Your task to perform on an android device: Do I have any events tomorrow? Image 0: 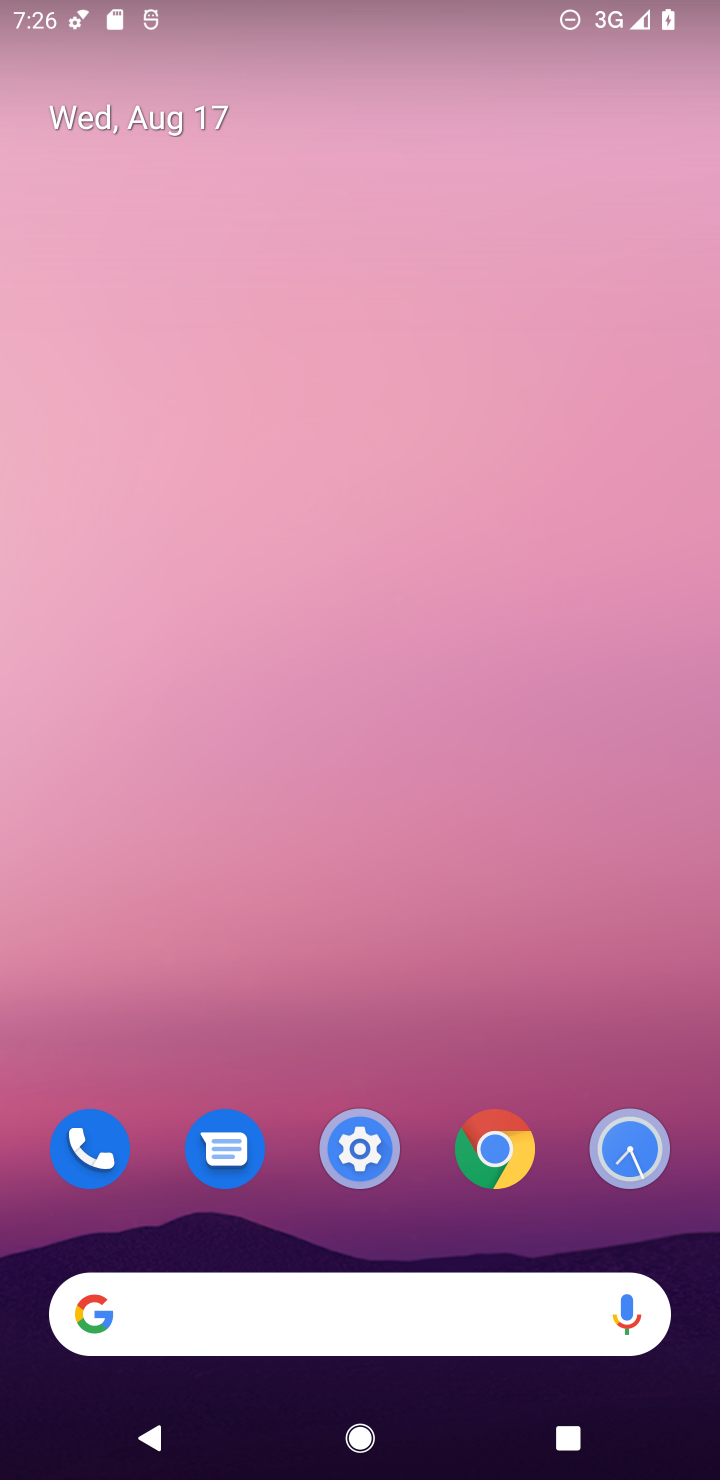
Step 0: drag from (414, 1263) to (414, 293)
Your task to perform on an android device: Do I have any events tomorrow? Image 1: 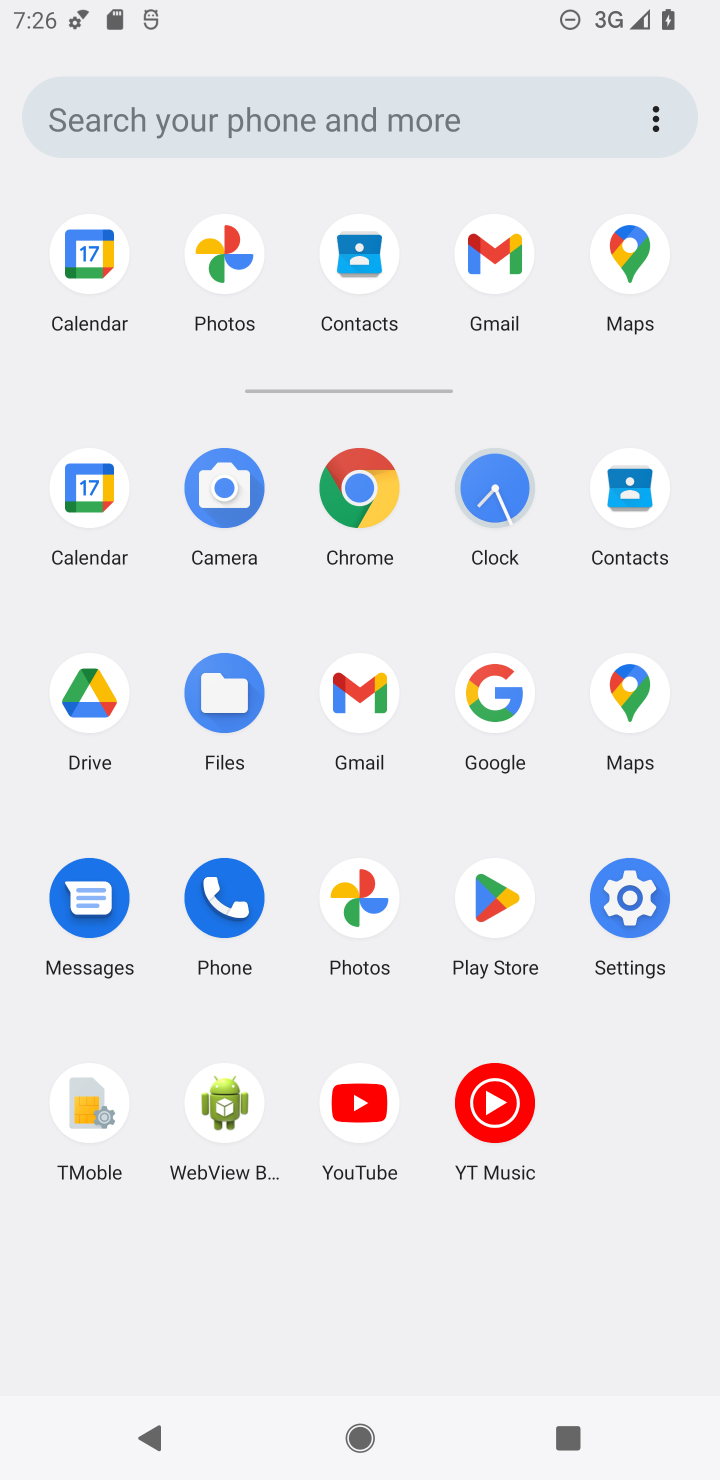
Step 1: click (89, 255)
Your task to perform on an android device: Do I have any events tomorrow? Image 2: 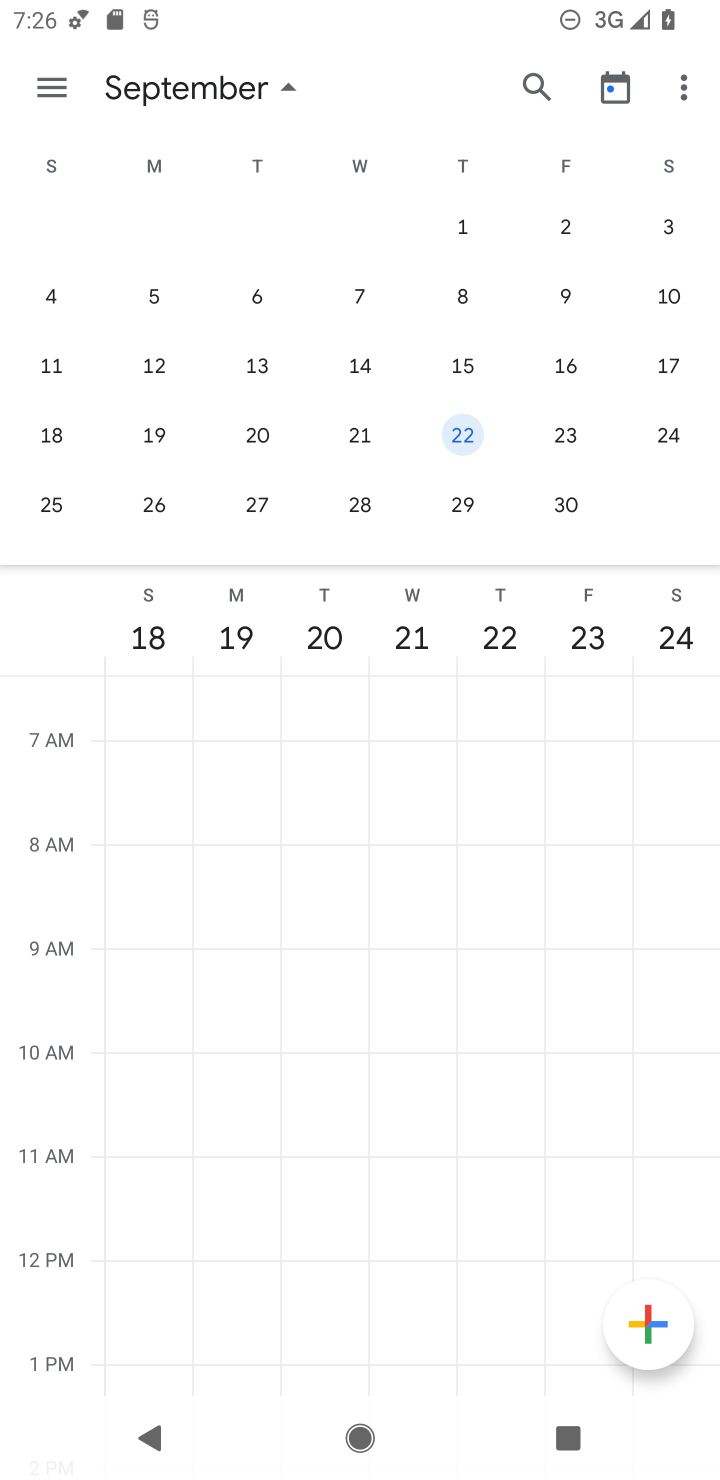
Step 2: drag from (64, 309) to (574, 368)
Your task to perform on an android device: Do I have any events tomorrow? Image 3: 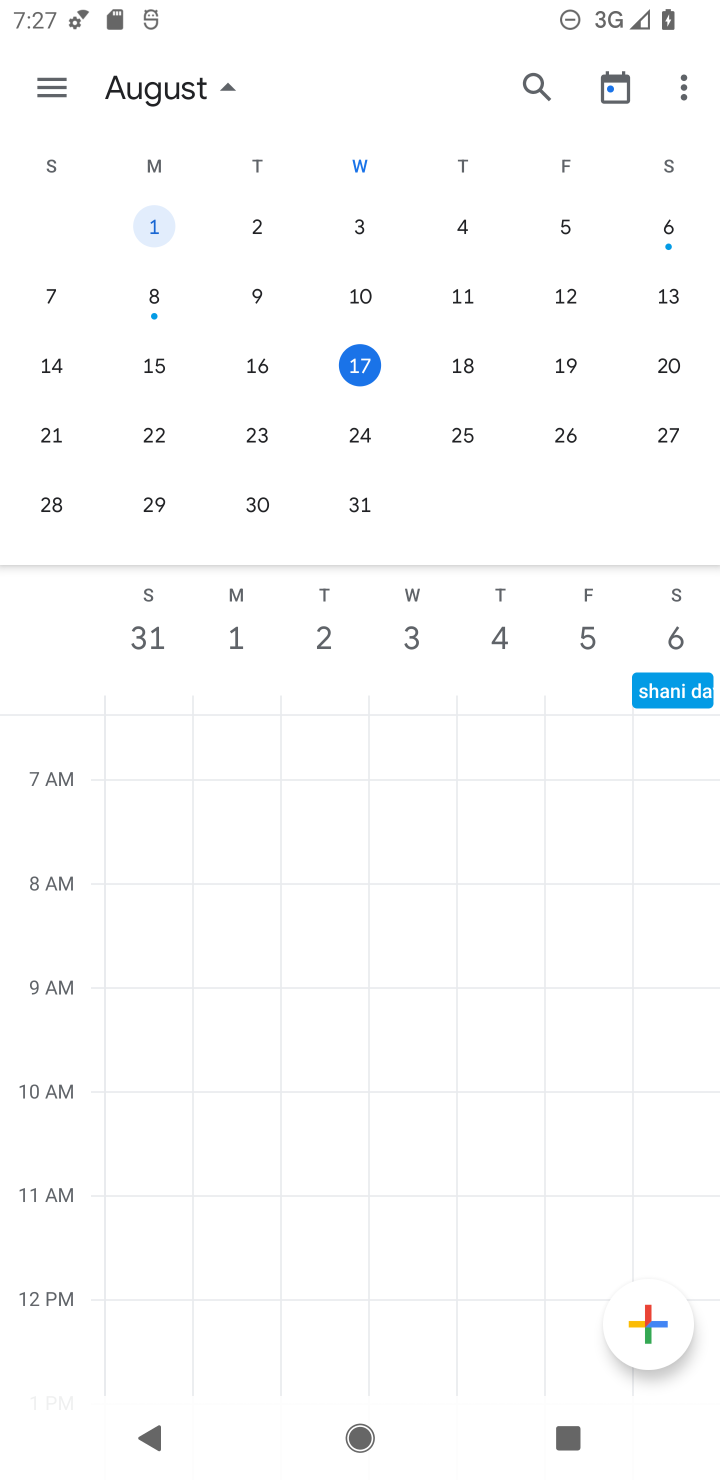
Step 3: click (456, 359)
Your task to perform on an android device: Do I have any events tomorrow? Image 4: 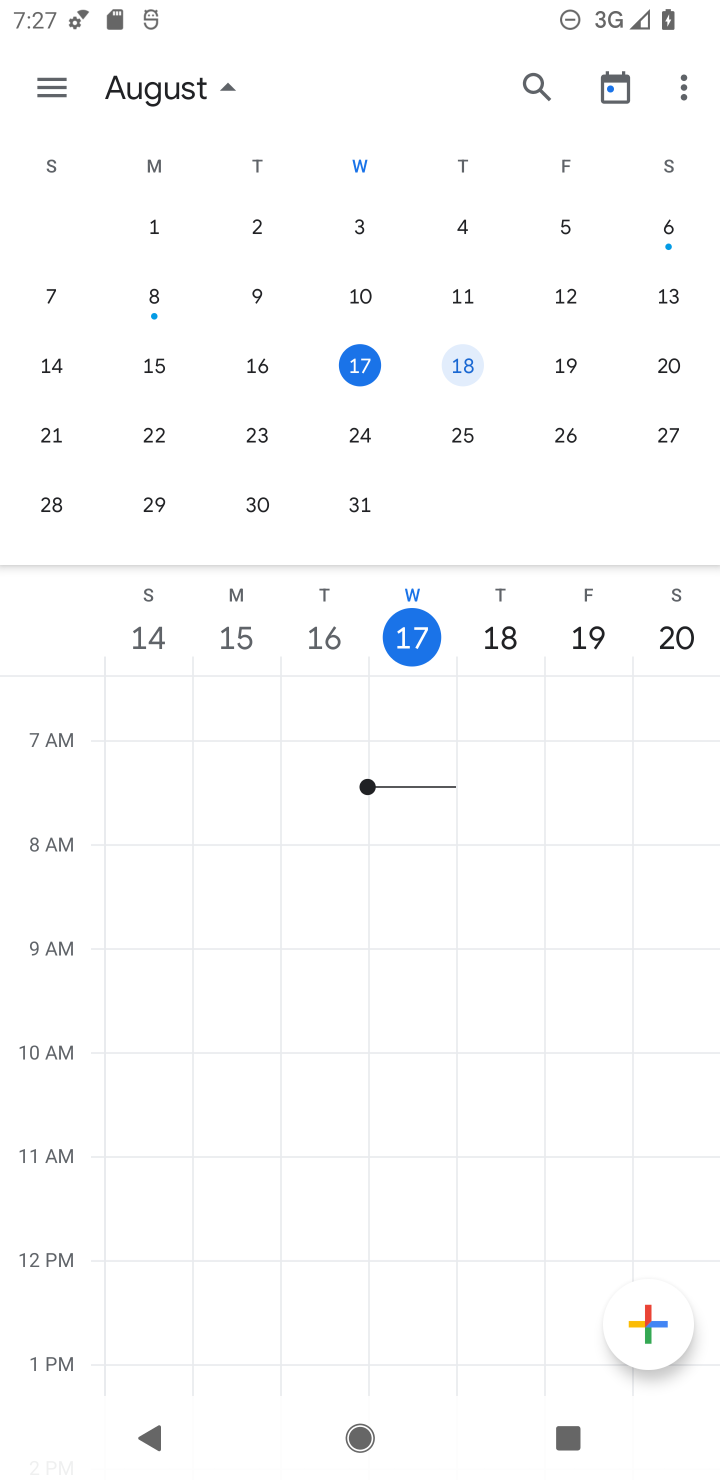
Step 4: click (52, 83)
Your task to perform on an android device: Do I have any events tomorrow? Image 5: 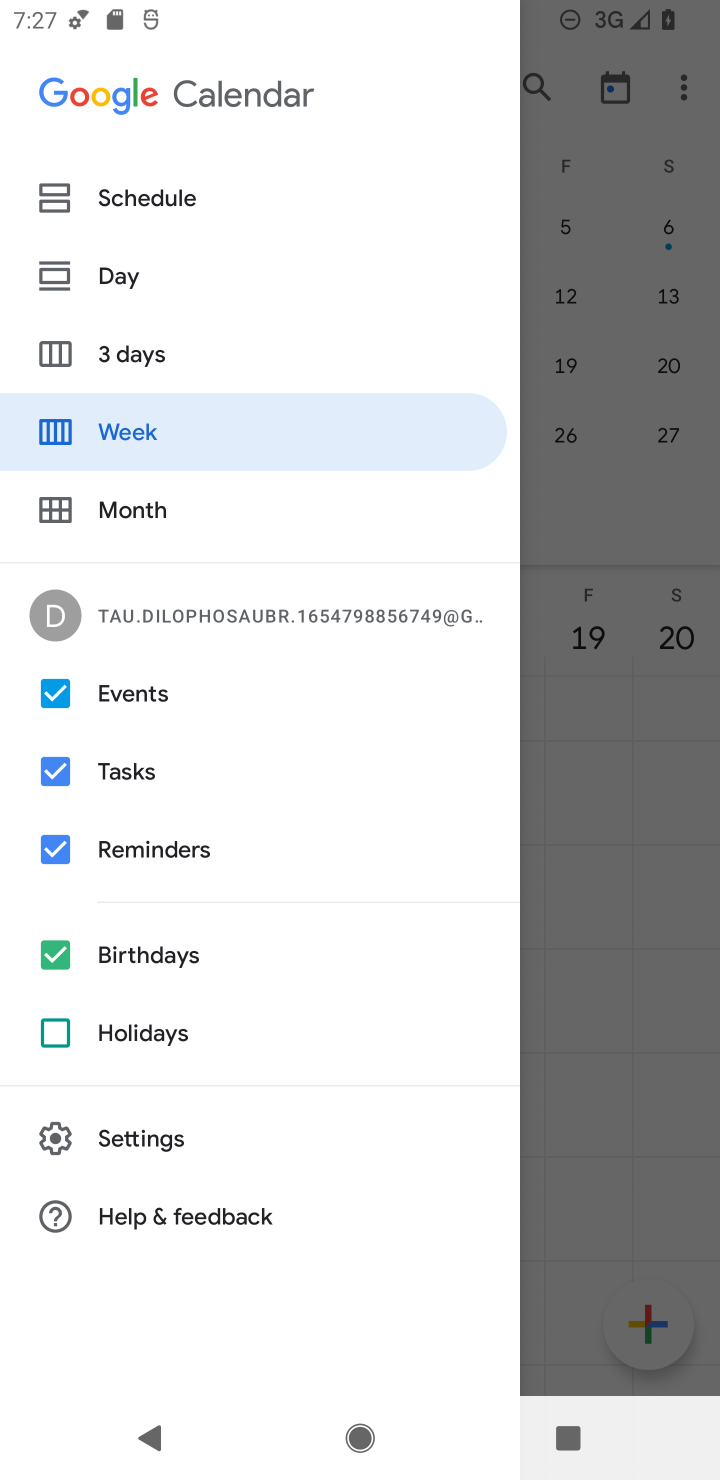
Step 5: click (111, 285)
Your task to perform on an android device: Do I have any events tomorrow? Image 6: 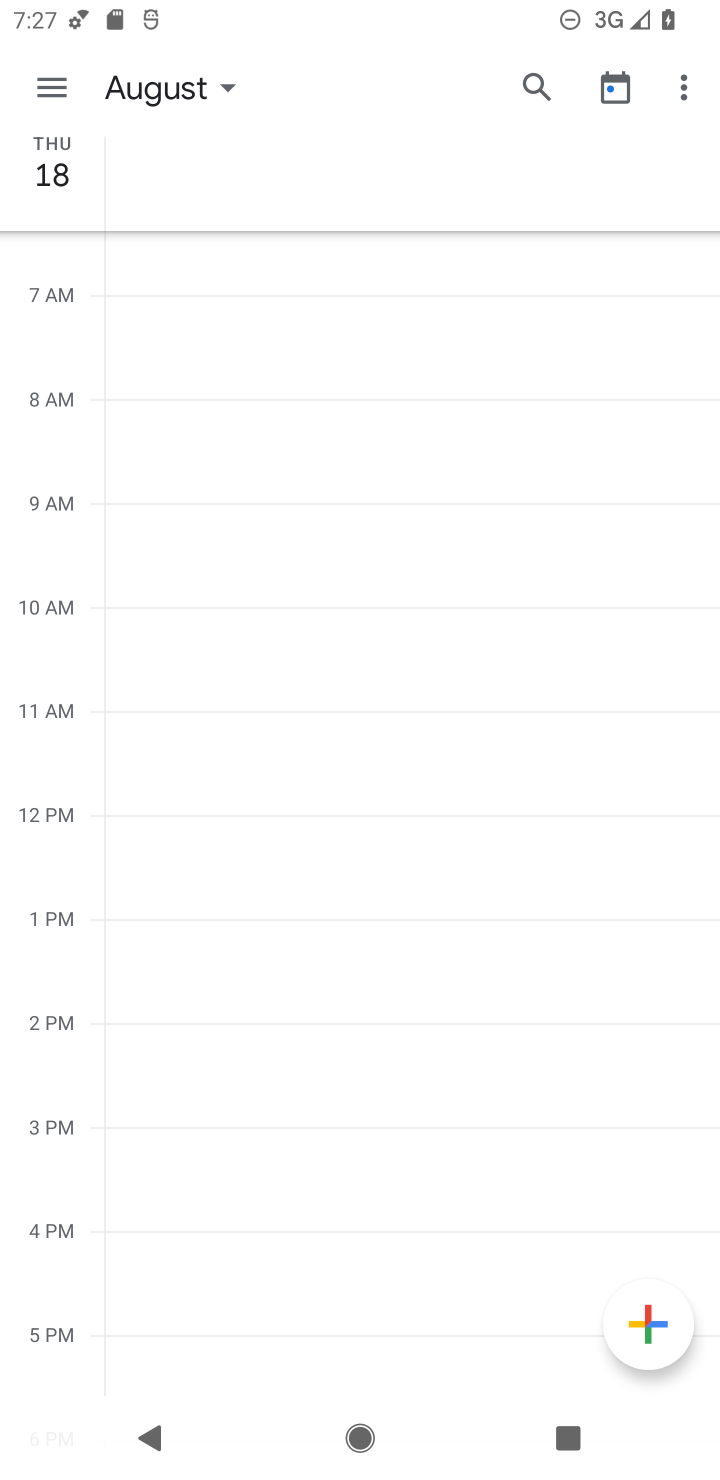
Step 6: task complete